Your task to perform on an android device: turn on sleep mode Image 0: 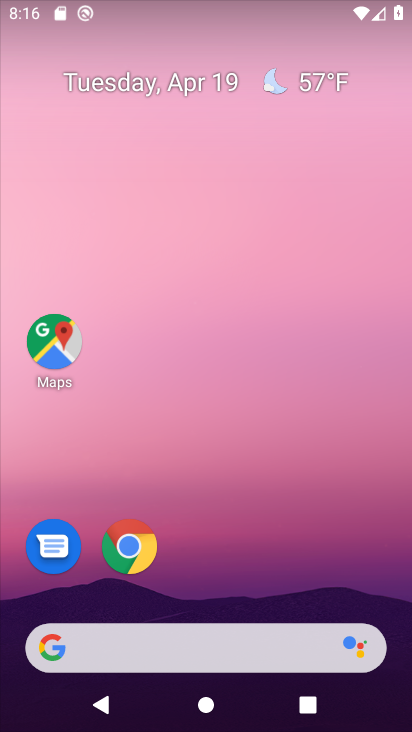
Step 0: drag from (232, 571) to (332, 105)
Your task to perform on an android device: turn on sleep mode Image 1: 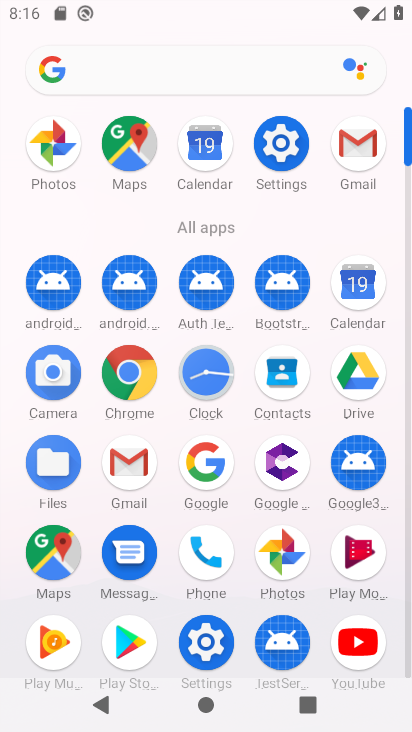
Step 1: click (287, 154)
Your task to perform on an android device: turn on sleep mode Image 2: 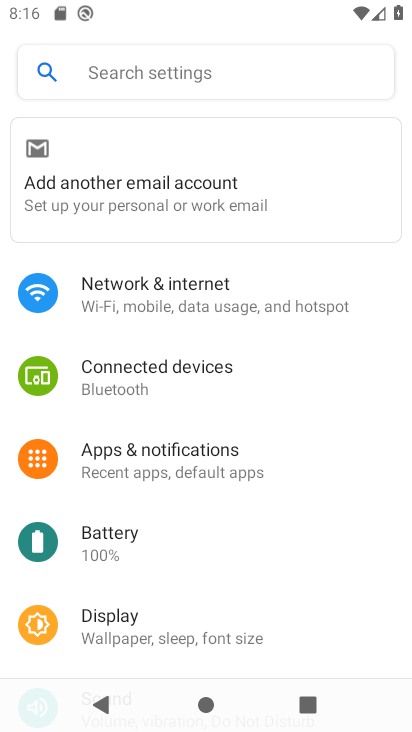
Step 2: click (221, 40)
Your task to perform on an android device: turn on sleep mode Image 3: 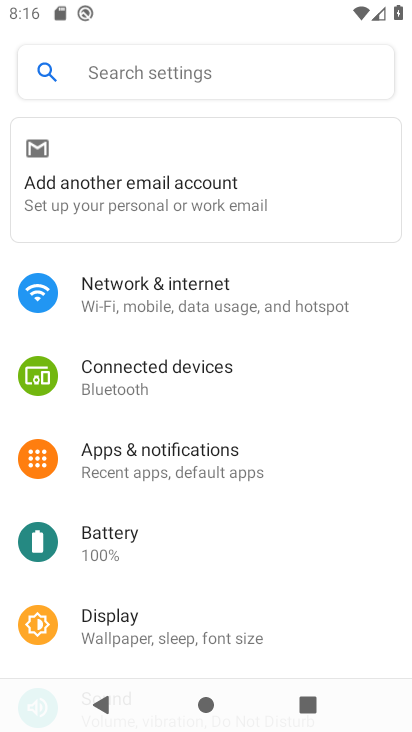
Step 3: click (222, 66)
Your task to perform on an android device: turn on sleep mode Image 4: 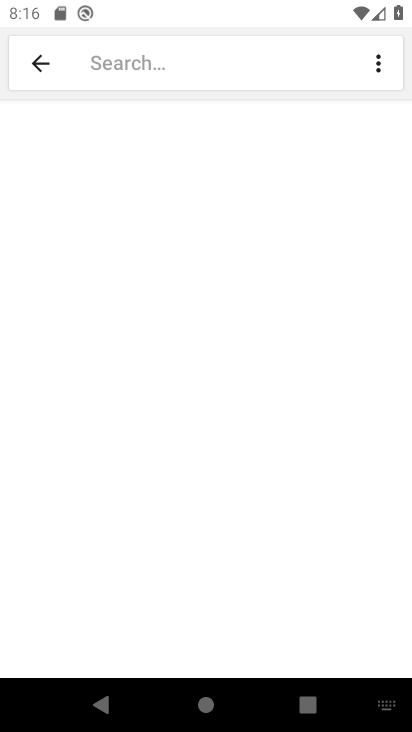
Step 4: type "sleep mode"
Your task to perform on an android device: turn on sleep mode Image 5: 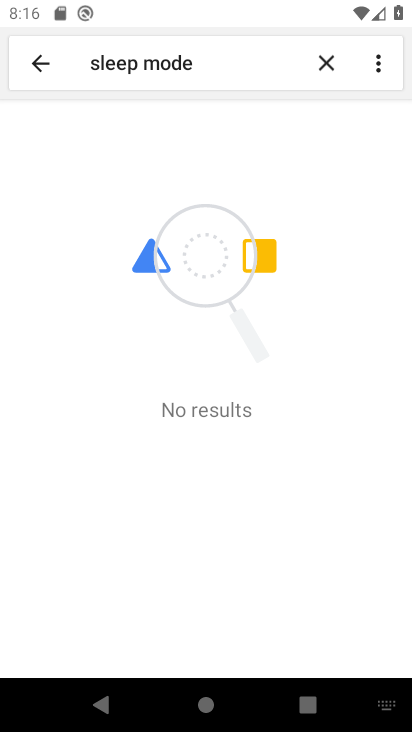
Step 5: task complete